Your task to perform on an android device: turn on data saver in the chrome app Image 0: 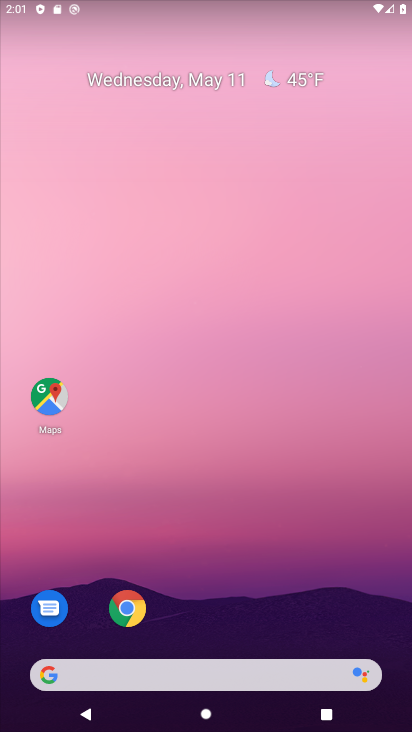
Step 0: click (122, 612)
Your task to perform on an android device: turn on data saver in the chrome app Image 1: 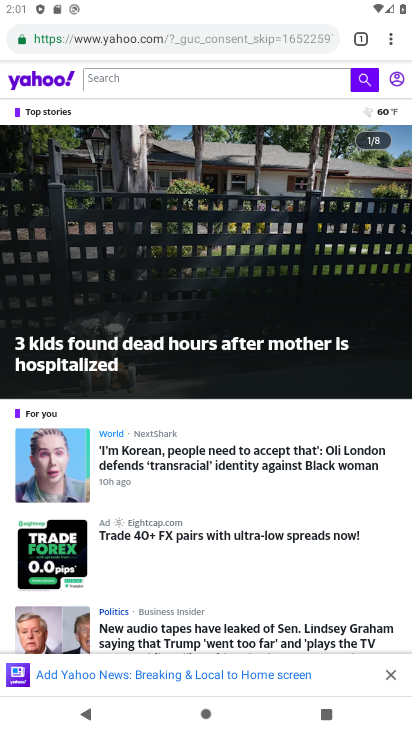
Step 1: drag from (391, 44) to (324, 473)
Your task to perform on an android device: turn on data saver in the chrome app Image 2: 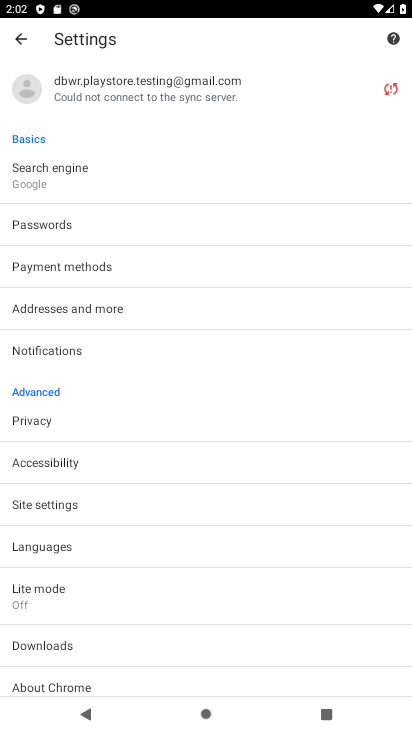
Step 2: click (88, 603)
Your task to perform on an android device: turn on data saver in the chrome app Image 3: 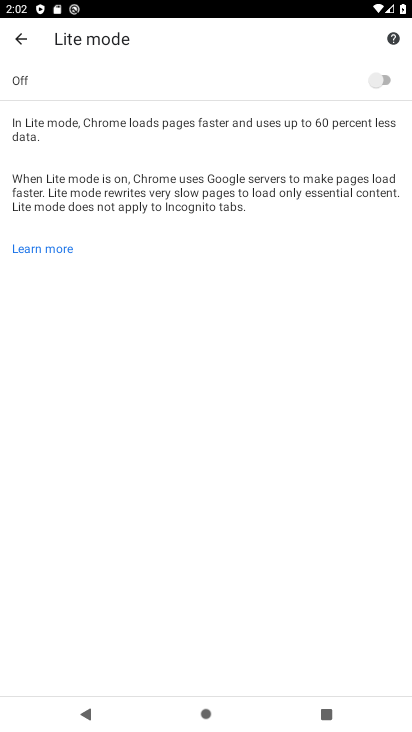
Step 3: click (381, 77)
Your task to perform on an android device: turn on data saver in the chrome app Image 4: 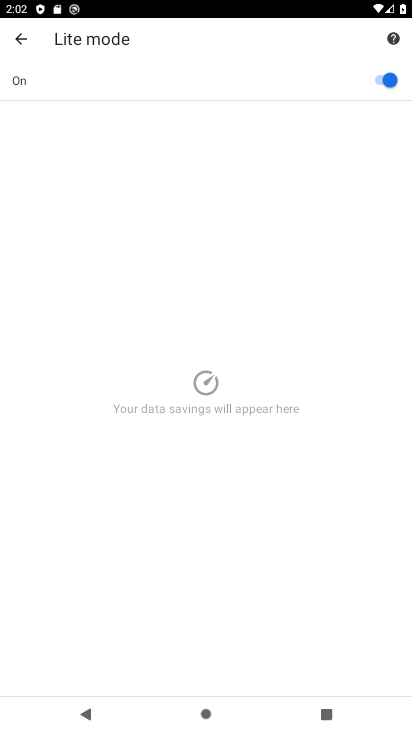
Step 4: task complete